Your task to perform on an android device: choose inbox layout in the gmail app Image 0: 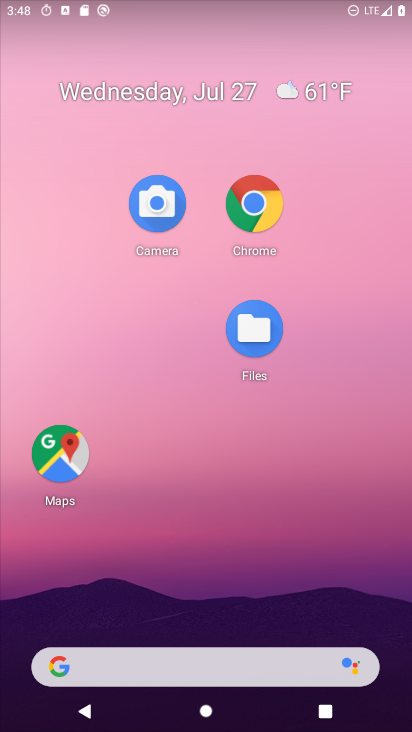
Step 0: drag from (188, 610) to (188, 207)
Your task to perform on an android device: choose inbox layout in the gmail app Image 1: 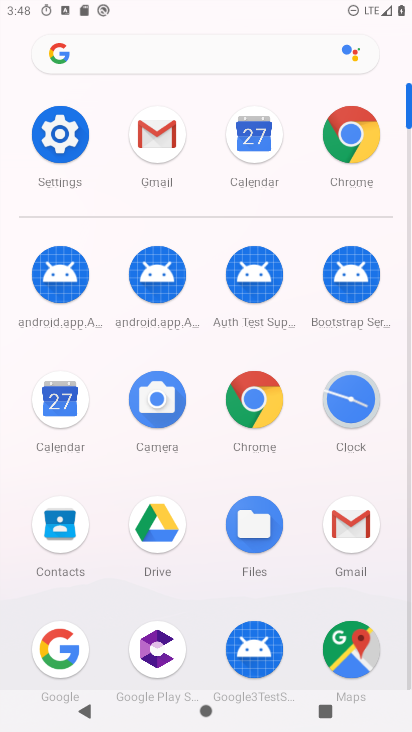
Step 1: click (152, 153)
Your task to perform on an android device: choose inbox layout in the gmail app Image 2: 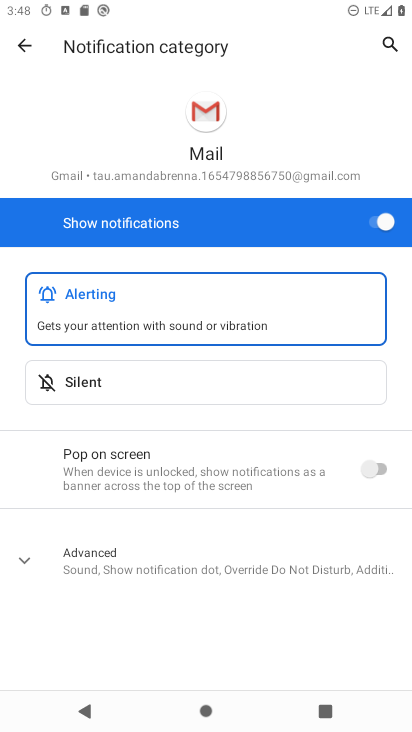
Step 2: click (16, 52)
Your task to perform on an android device: choose inbox layout in the gmail app Image 3: 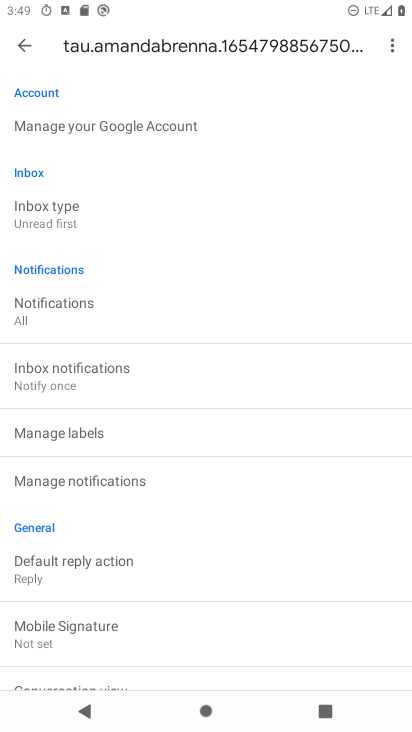
Step 3: drag from (147, 222) to (165, 474)
Your task to perform on an android device: choose inbox layout in the gmail app Image 4: 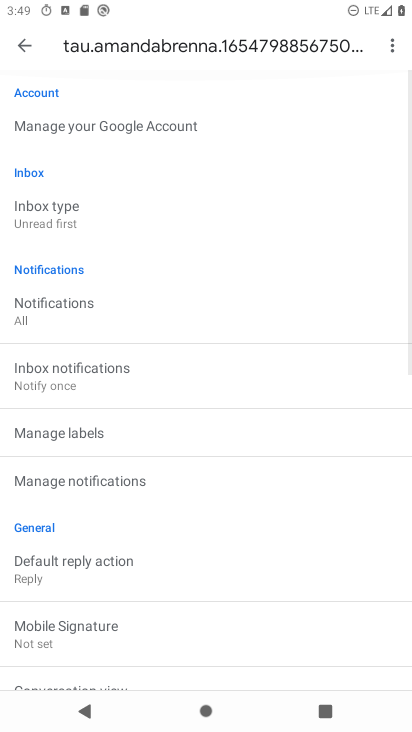
Step 4: click (86, 220)
Your task to perform on an android device: choose inbox layout in the gmail app Image 5: 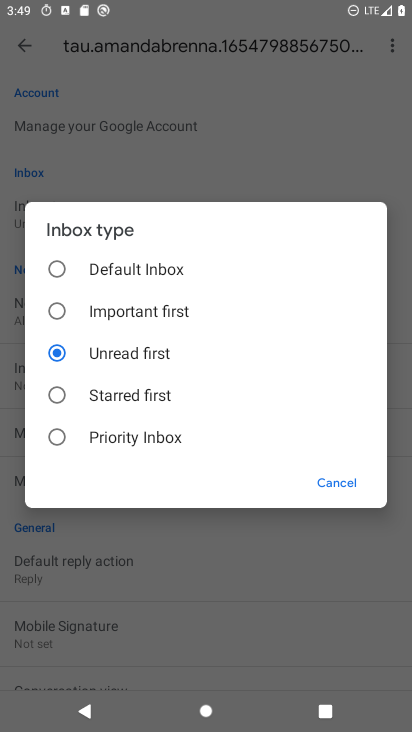
Step 5: click (128, 273)
Your task to perform on an android device: choose inbox layout in the gmail app Image 6: 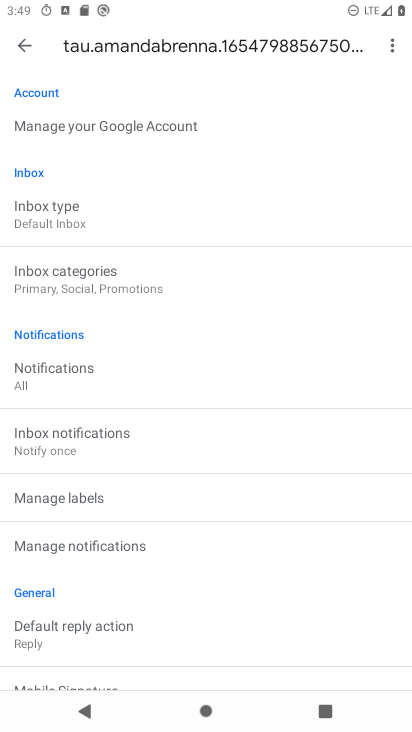
Step 6: task complete